Your task to perform on an android device: turn on notifications settings in the gmail app Image 0: 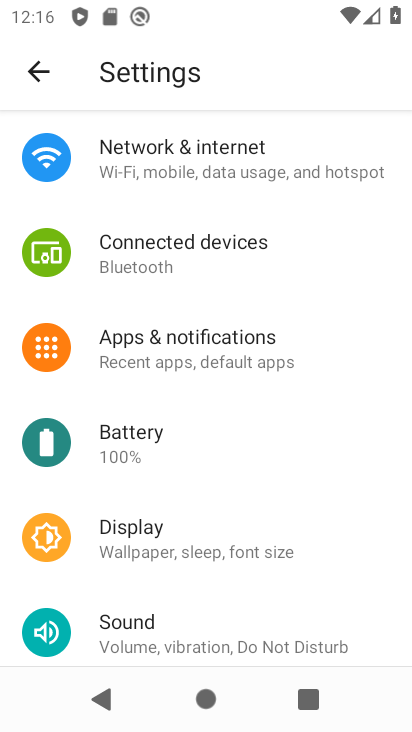
Step 0: click (195, 332)
Your task to perform on an android device: turn on notifications settings in the gmail app Image 1: 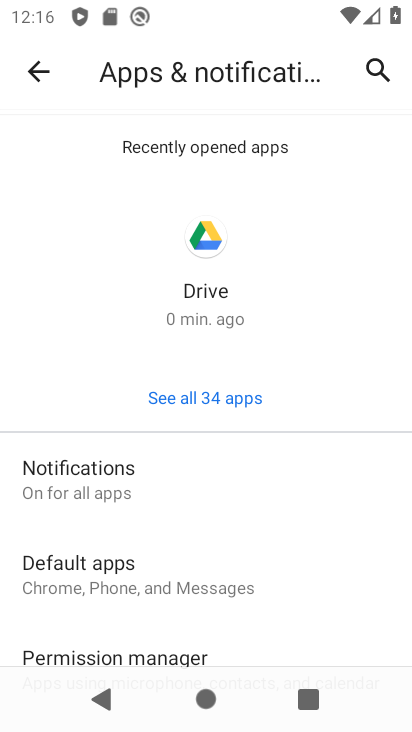
Step 1: click (122, 489)
Your task to perform on an android device: turn on notifications settings in the gmail app Image 2: 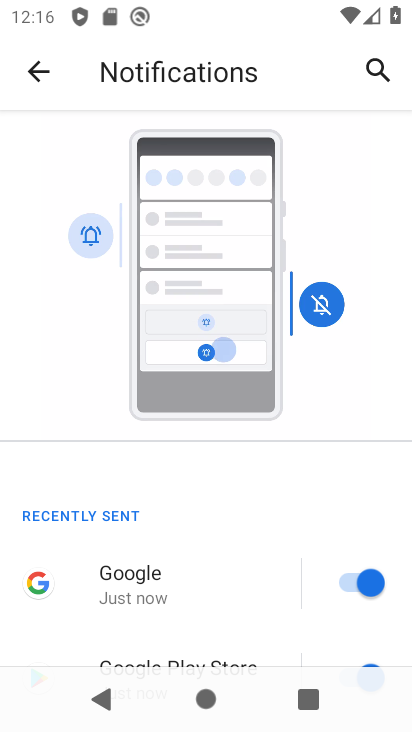
Step 2: drag from (91, 607) to (114, 179)
Your task to perform on an android device: turn on notifications settings in the gmail app Image 3: 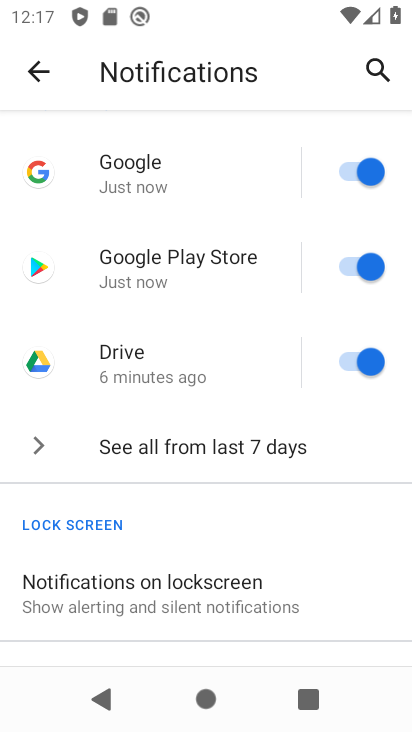
Step 3: drag from (135, 561) to (159, 253)
Your task to perform on an android device: turn on notifications settings in the gmail app Image 4: 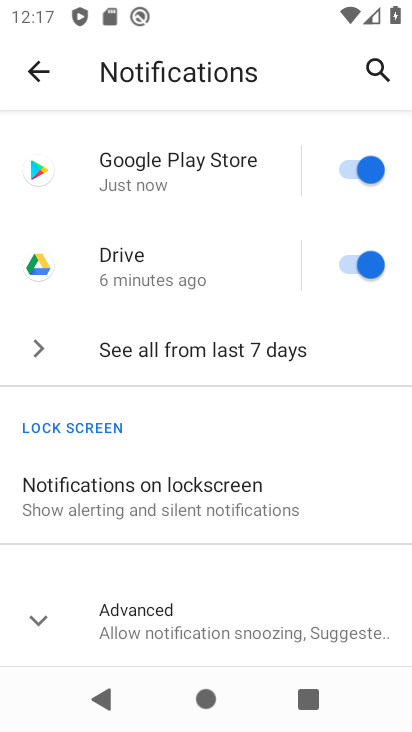
Step 4: click (146, 520)
Your task to perform on an android device: turn on notifications settings in the gmail app Image 5: 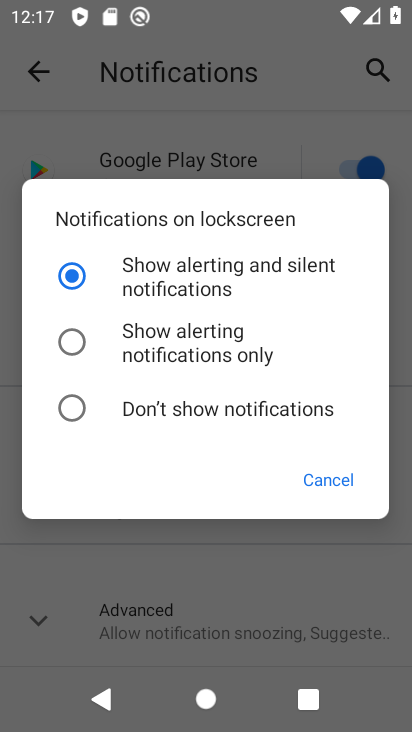
Step 5: task complete